Your task to perform on an android device: turn notification dots on Image 0: 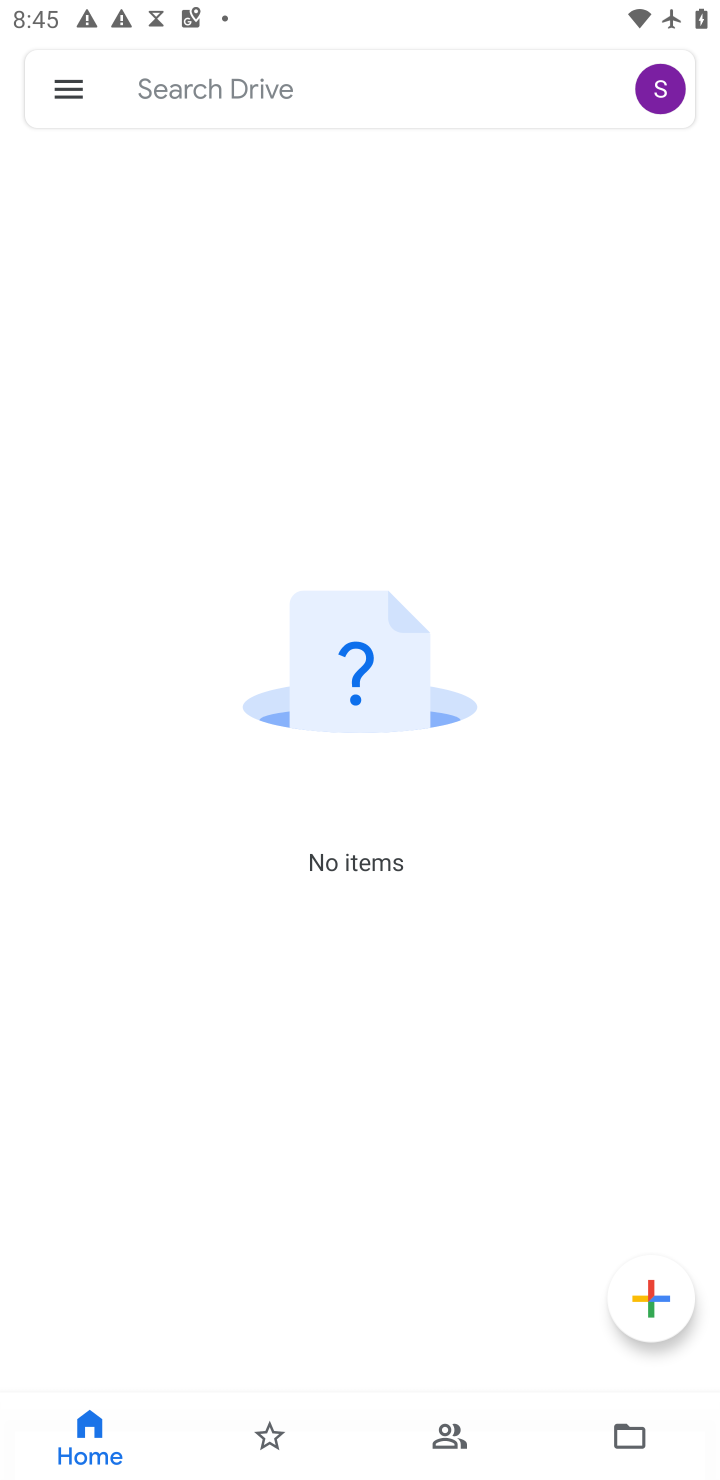
Step 0: press home button
Your task to perform on an android device: turn notification dots on Image 1: 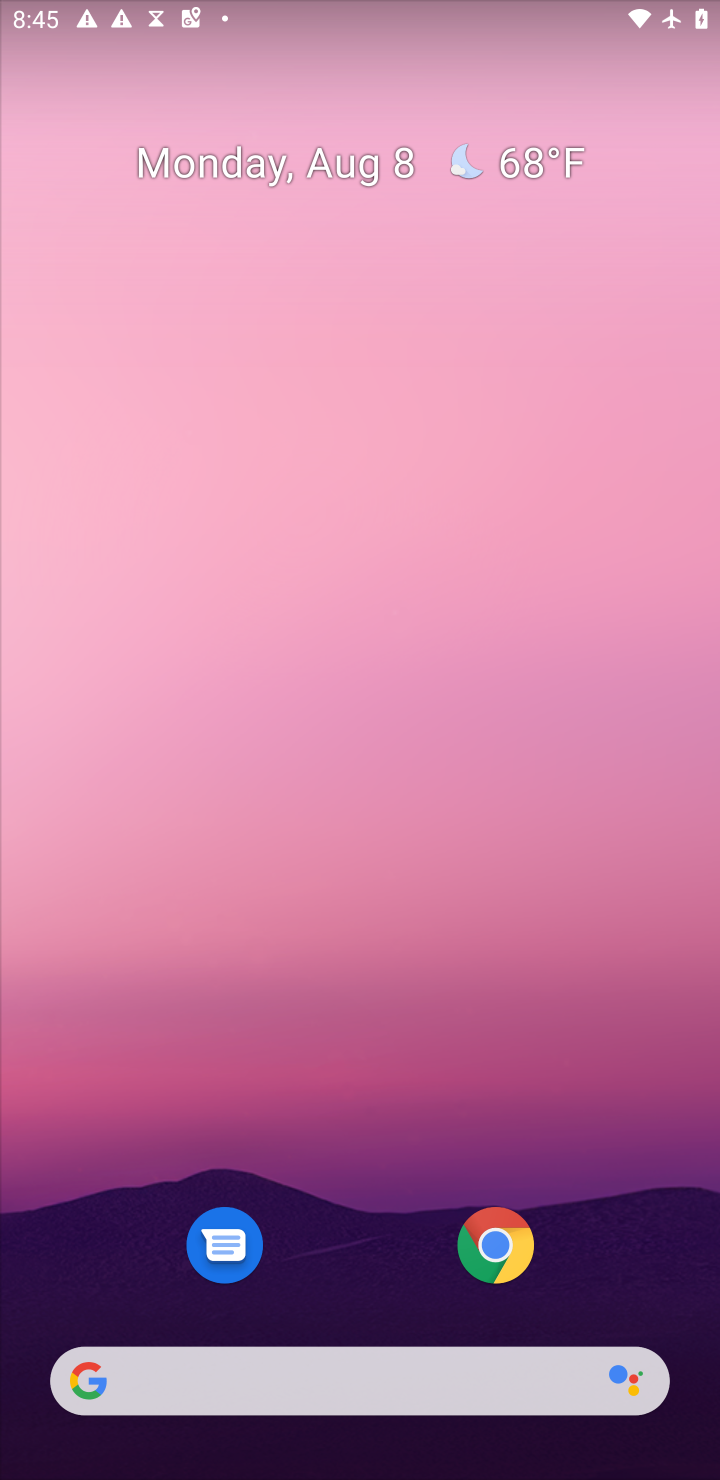
Step 1: drag from (324, 1305) to (369, 393)
Your task to perform on an android device: turn notification dots on Image 2: 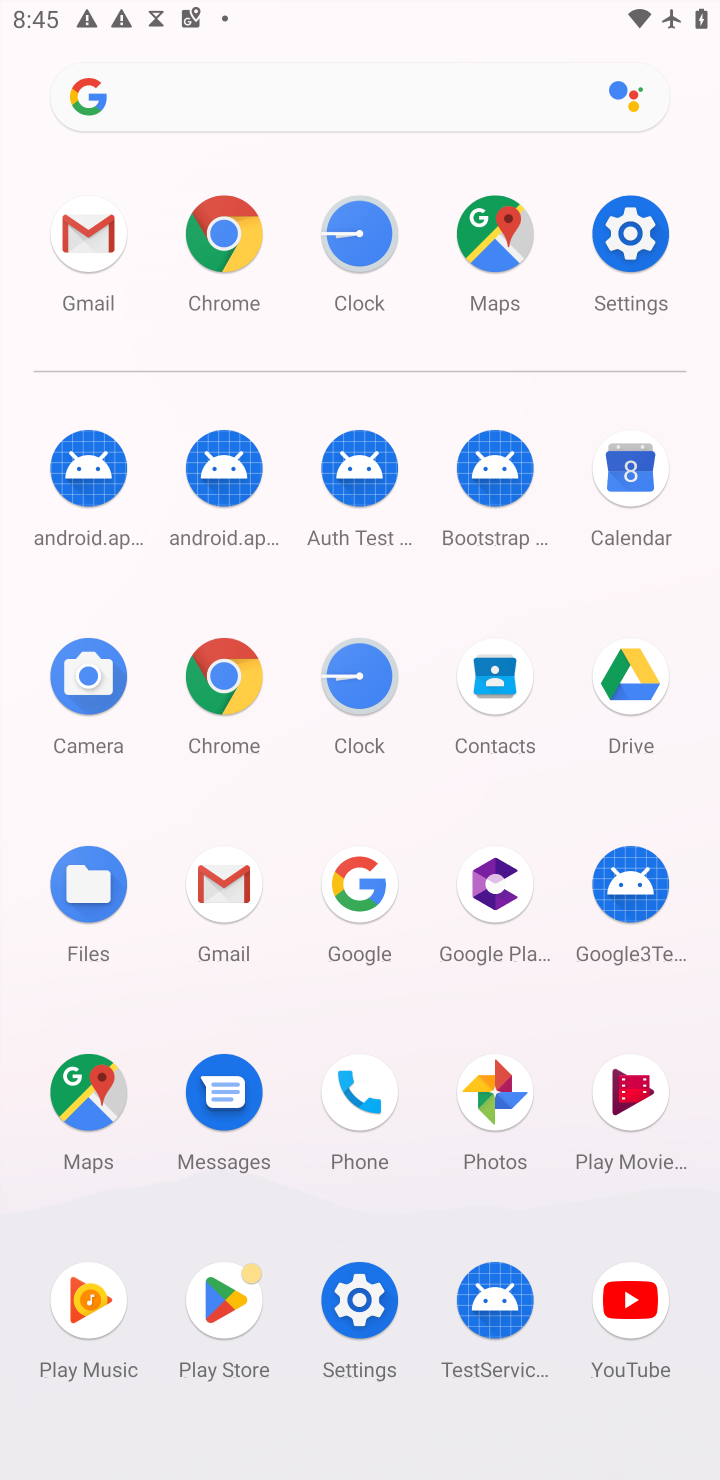
Step 2: click (332, 1300)
Your task to perform on an android device: turn notification dots on Image 3: 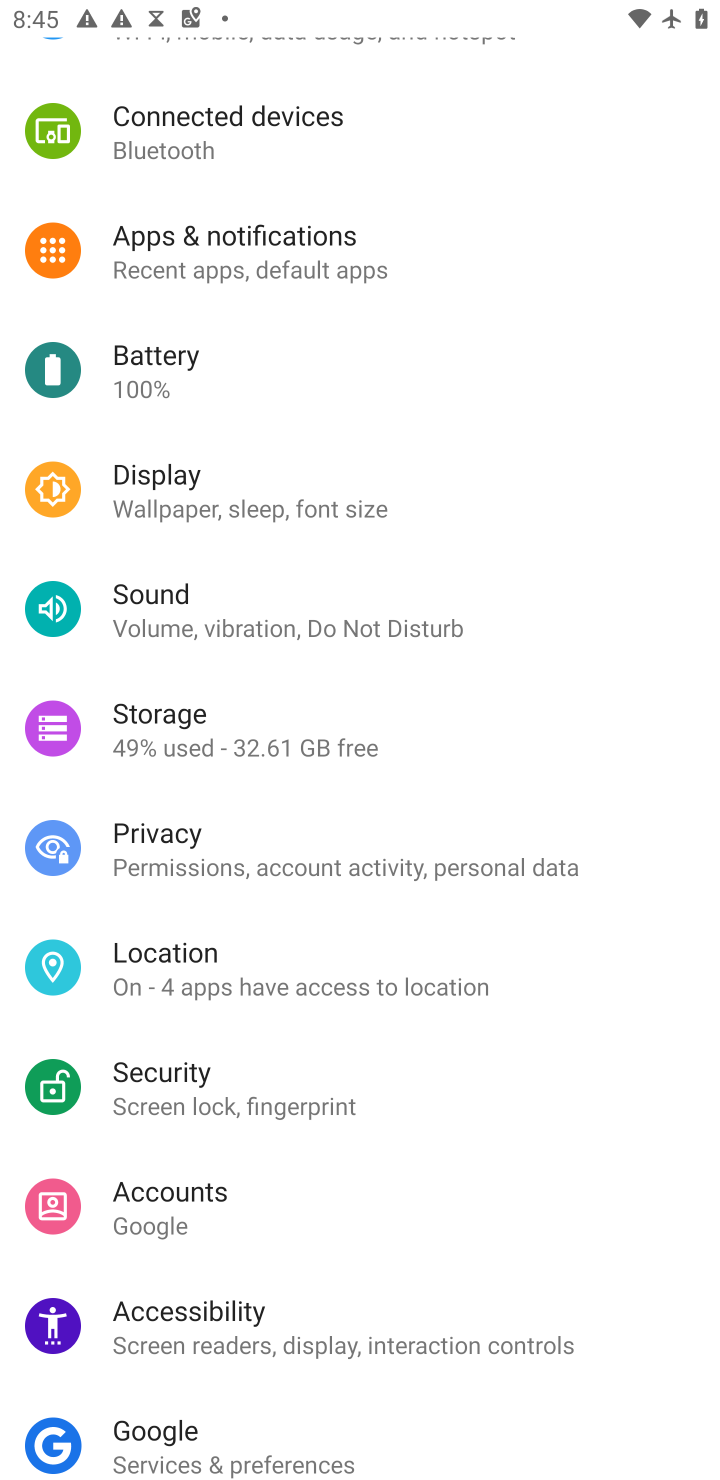
Step 3: click (280, 254)
Your task to perform on an android device: turn notification dots on Image 4: 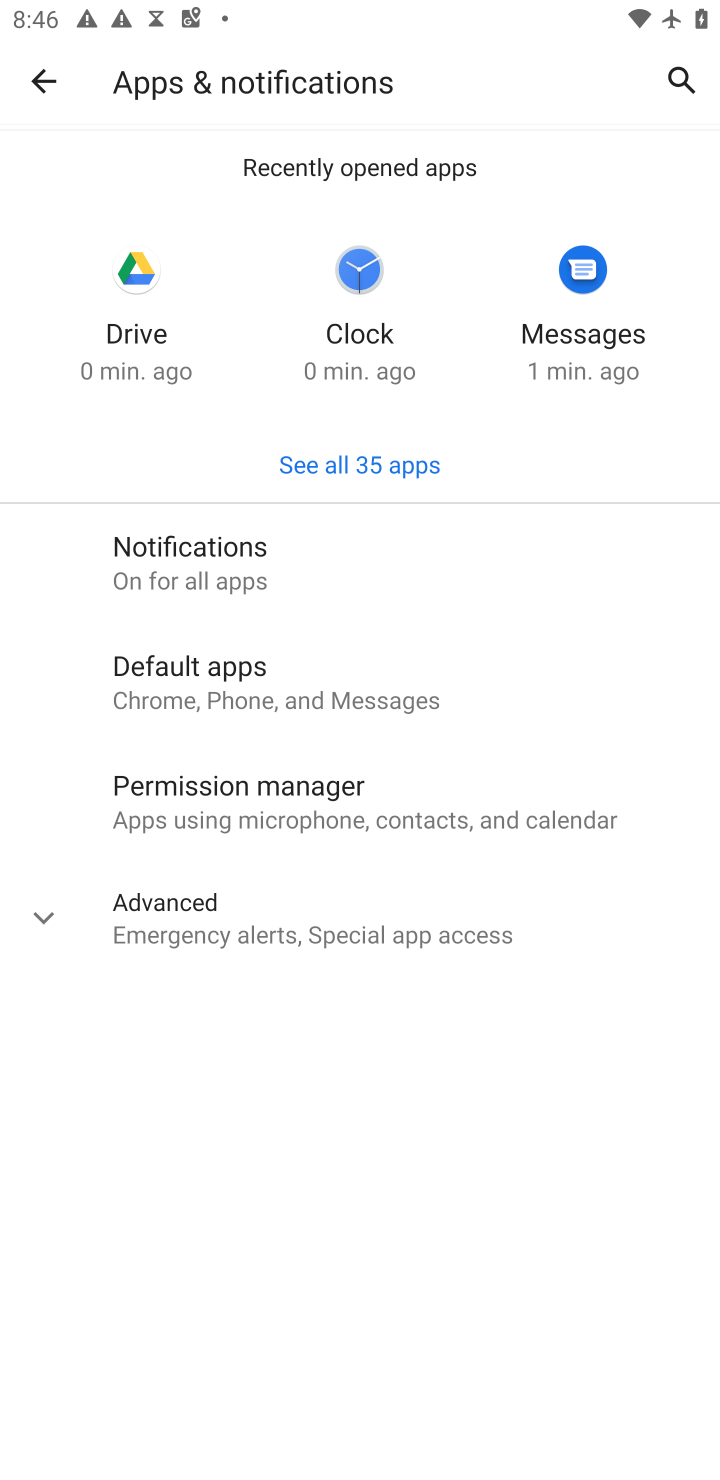
Step 4: click (234, 563)
Your task to perform on an android device: turn notification dots on Image 5: 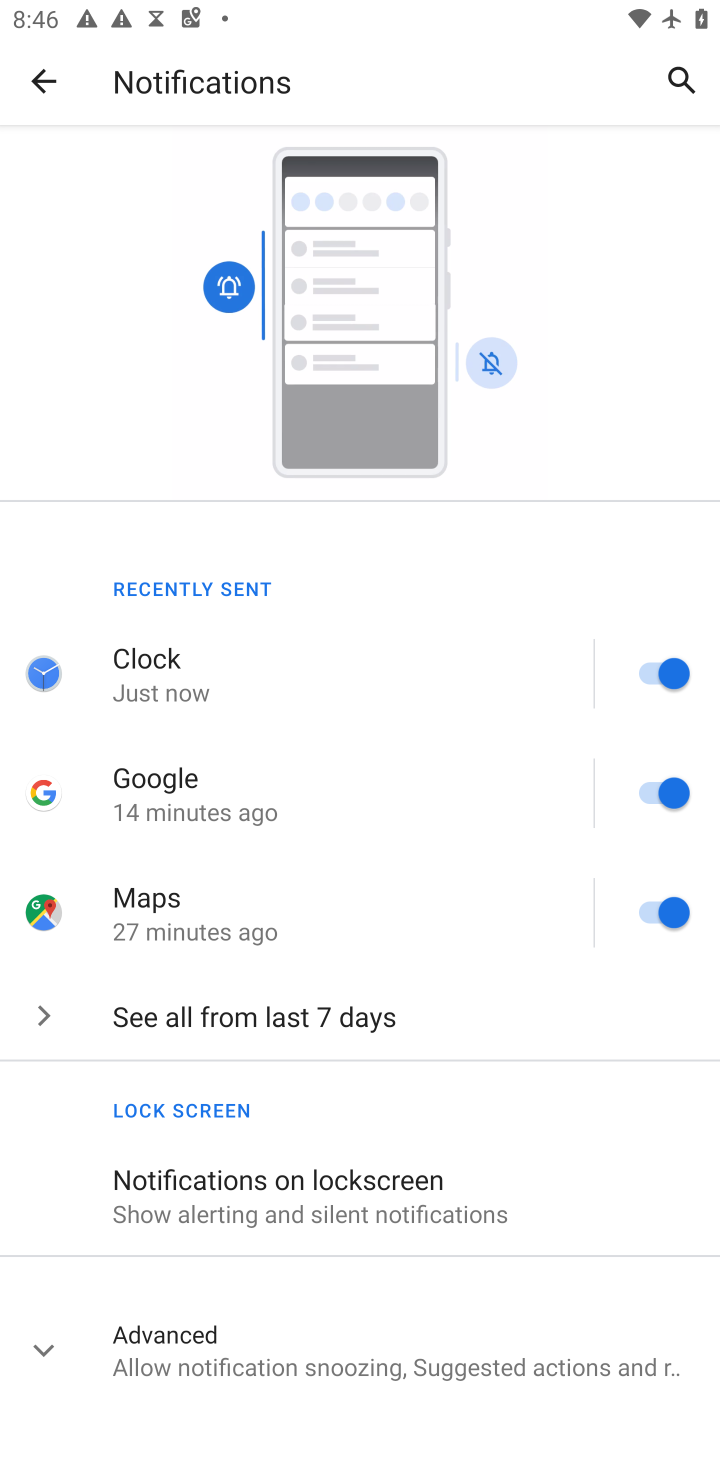
Step 5: click (178, 1349)
Your task to perform on an android device: turn notification dots on Image 6: 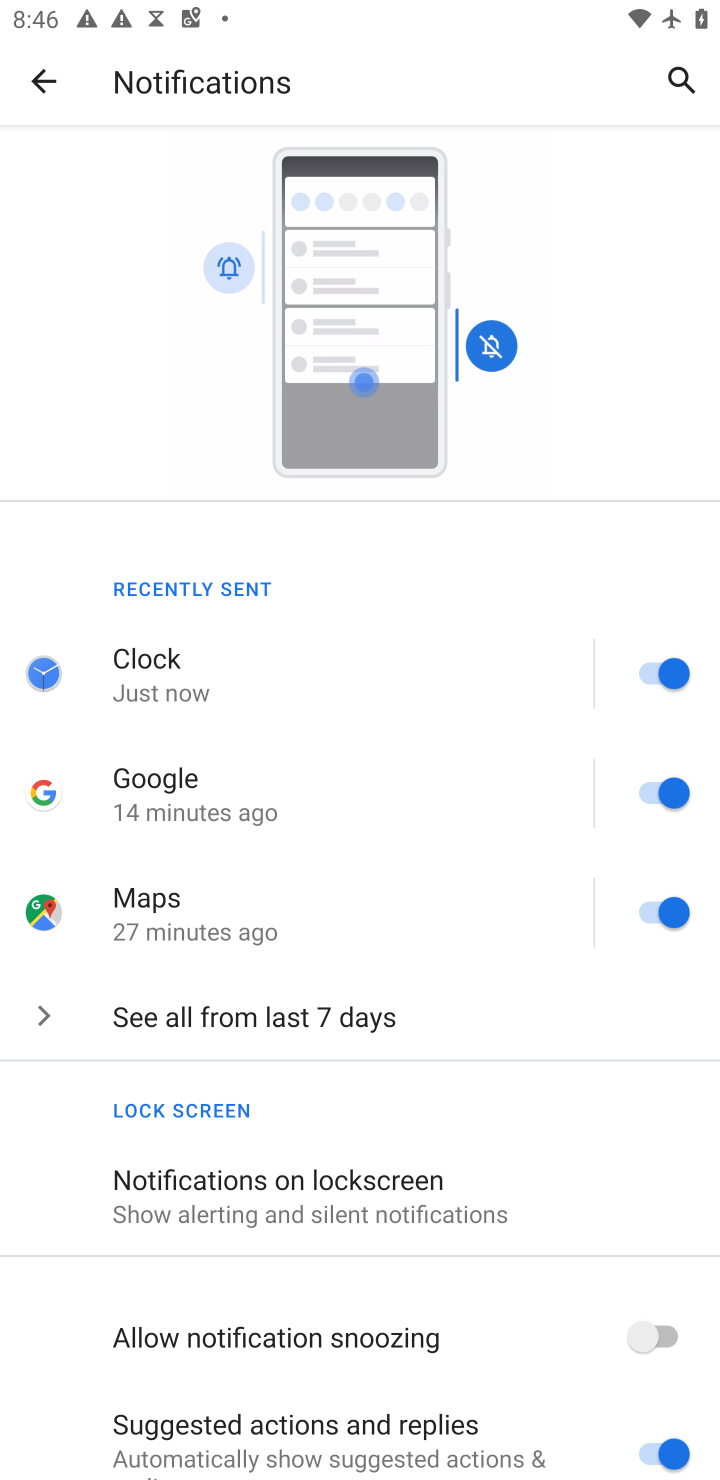
Step 6: task complete